Your task to perform on an android device: turn on priority inbox in the gmail app Image 0: 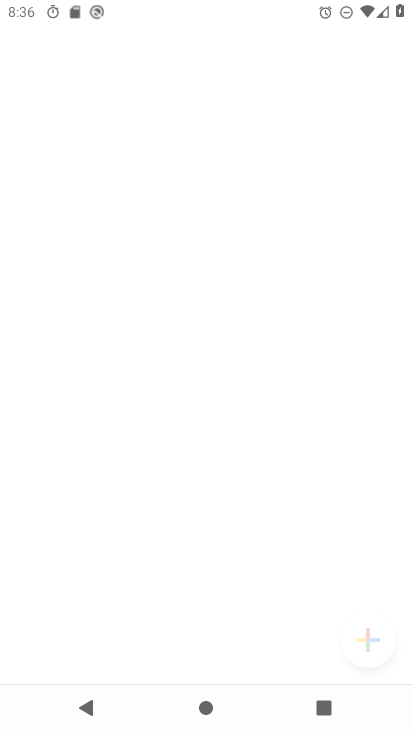
Step 0: drag from (364, 597) to (375, 181)
Your task to perform on an android device: turn on priority inbox in the gmail app Image 1: 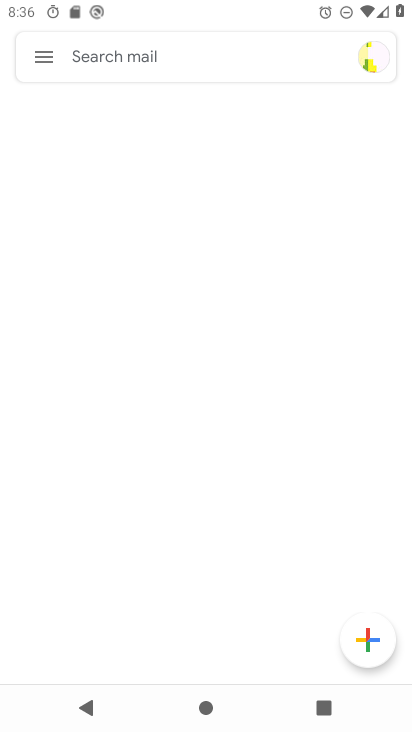
Step 1: press home button
Your task to perform on an android device: turn on priority inbox in the gmail app Image 2: 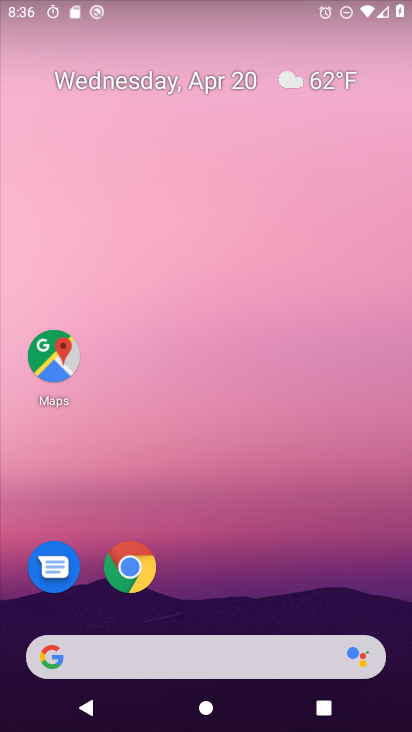
Step 2: drag from (356, 589) to (342, 13)
Your task to perform on an android device: turn on priority inbox in the gmail app Image 3: 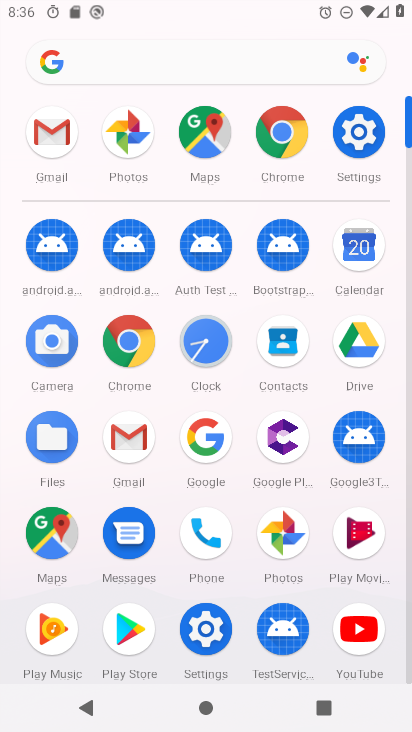
Step 3: click (50, 136)
Your task to perform on an android device: turn on priority inbox in the gmail app Image 4: 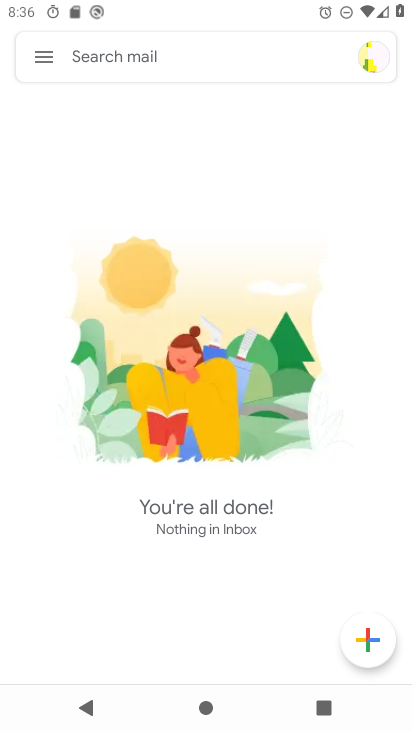
Step 4: click (36, 60)
Your task to perform on an android device: turn on priority inbox in the gmail app Image 5: 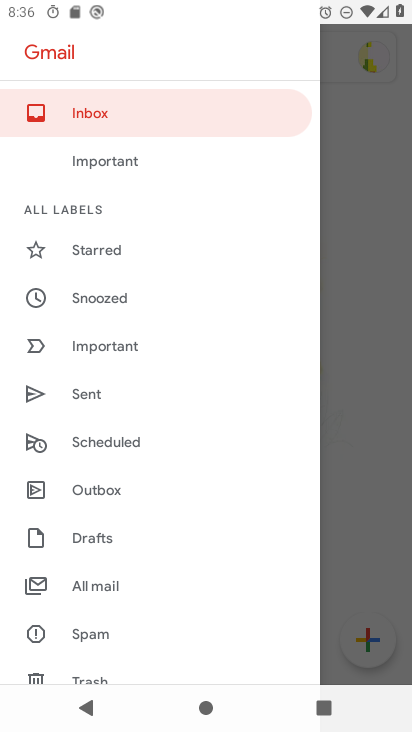
Step 5: drag from (218, 585) to (231, 174)
Your task to perform on an android device: turn on priority inbox in the gmail app Image 6: 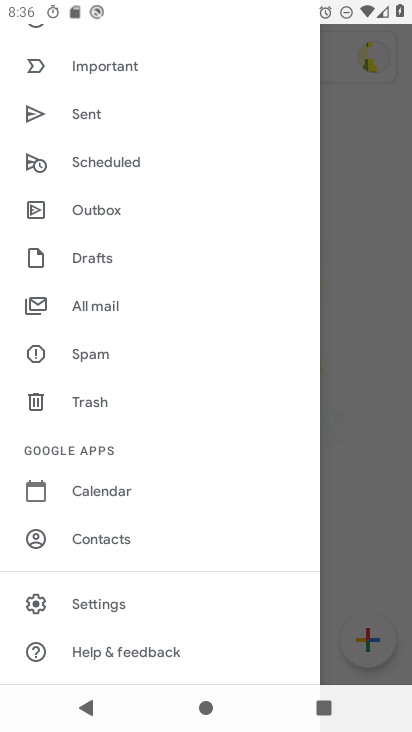
Step 6: click (95, 603)
Your task to perform on an android device: turn on priority inbox in the gmail app Image 7: 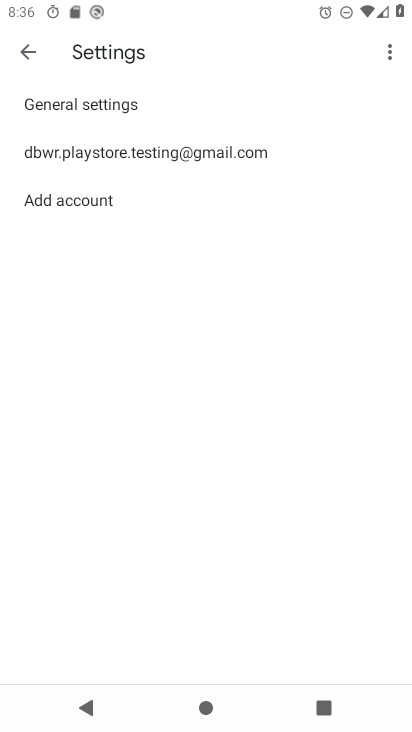
Step 7: click (65, 152)
Your task to perform on an android device: turn on priority inbox in the gmail app Image 8: 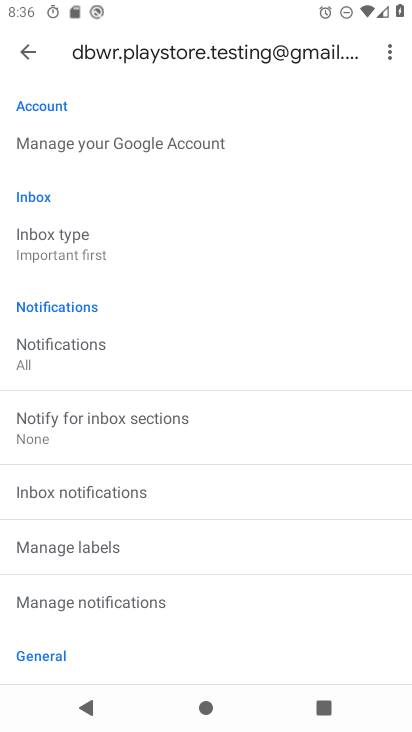
Step 8: click (57, 250)
Your task to perform on an android device: turn on priority inbox in the gmail app Image 9: 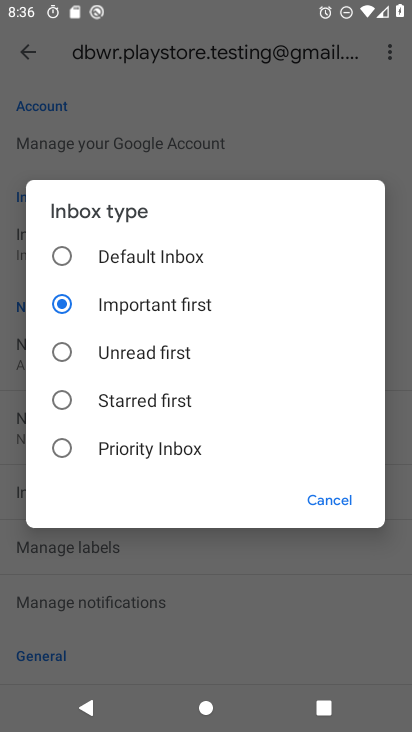
Step 9: click (68, 448)
Your task to perform on an android device: turn on priority inbox in the gmail app Image 10: 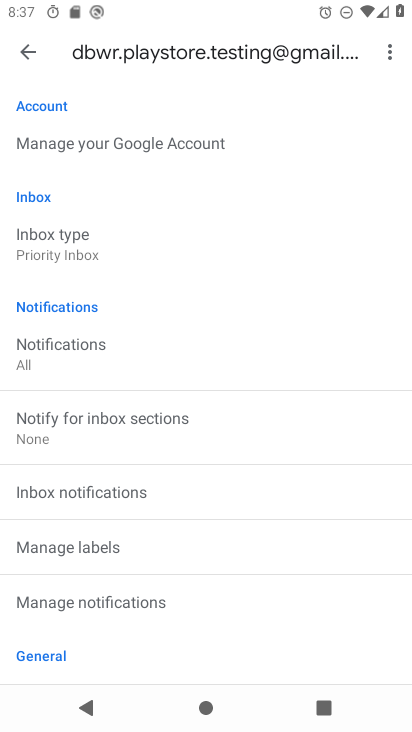
Step 10: task complete